Your task to perform on an android device: toggle sleep mode Image 0: 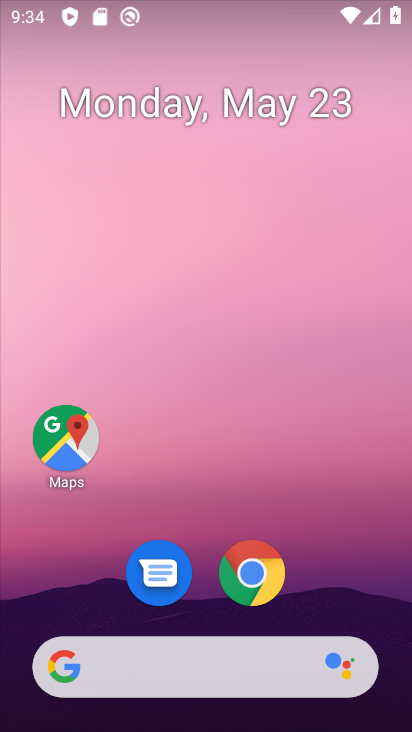
Step 0: drag from (166, 630) to (216, 157)
Your task to perform on an android device: toggle sleep mode Image 1: 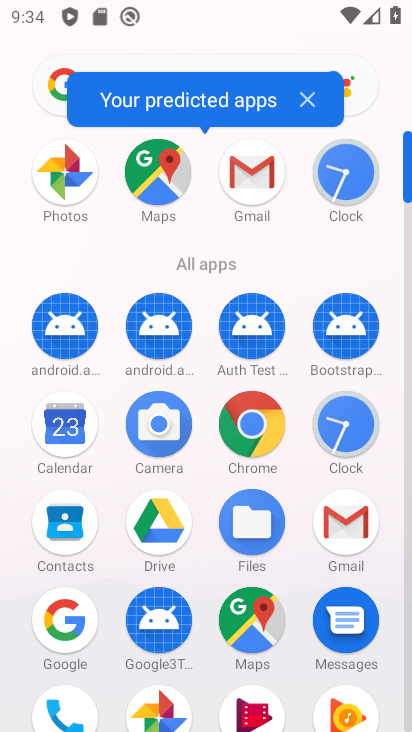
Step 1: drag from (201, 563) to (199, 126)
Your task to perform on an android device: toggle sleep mode Image 2: 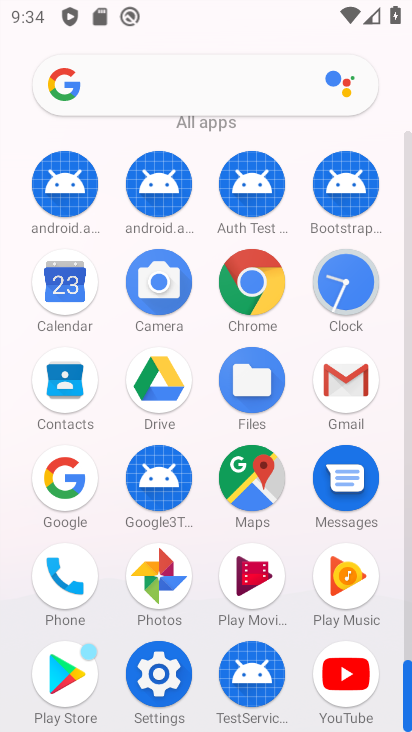
Step 2: click (161, 677)
Your task to perform on an android device: toggle sleep mode Image 3: 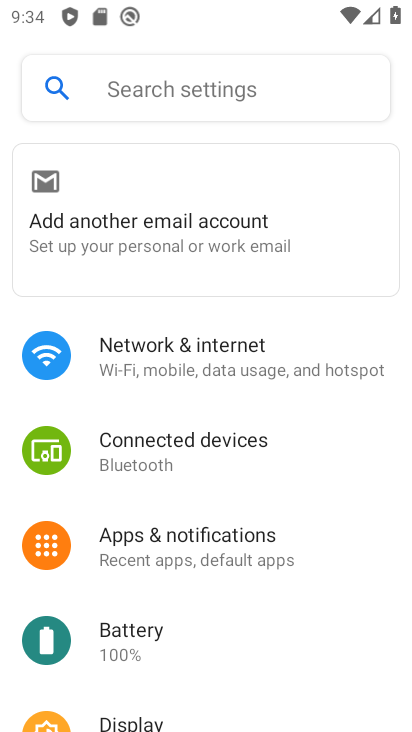
Step 3: drag from (170, 672) to (183, 244)
Your task to perform on an android device: toggle sleep mode Image 4: 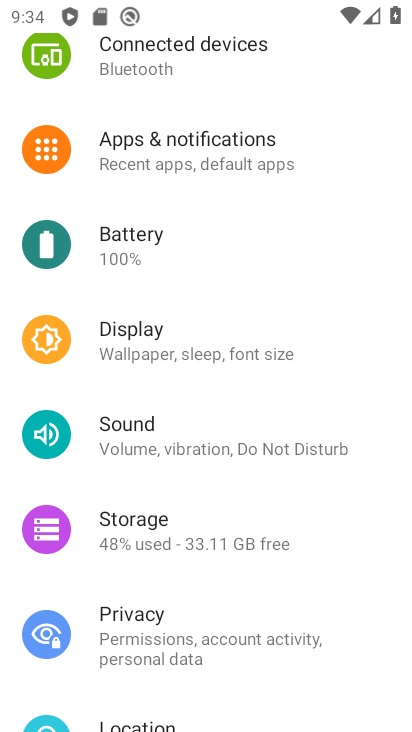
Step 4: click (217, 359)
Your task to perform on an android device: toggle sleep mode Image 5: 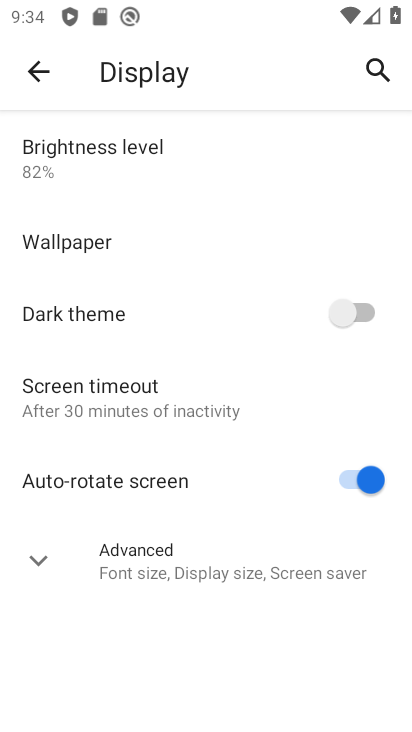
Step 5: click (176, 563)
Your task to perform on an android device: toggle sleep mode Image 6: 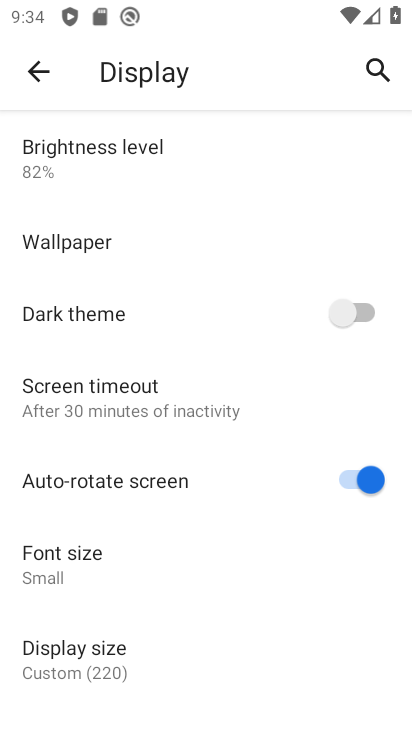
Step 6: drag from (190, 660) to (190, 186)
Your task to perform on an android device: toggle sleep mode Image 7: 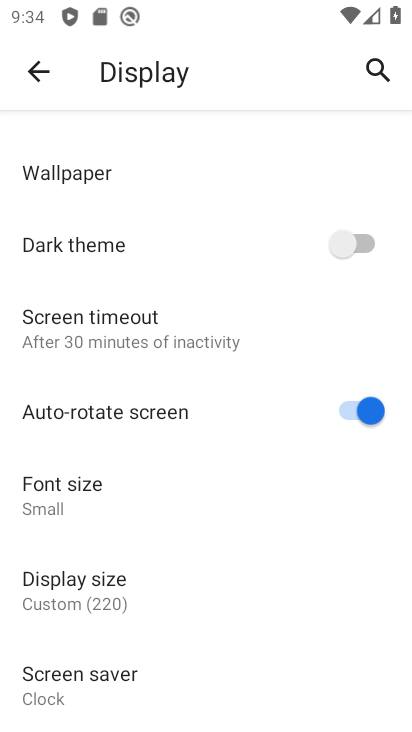
Step 7: click (117, 341)
Your task to perform on an android device: toggle sleep mode Image 8: 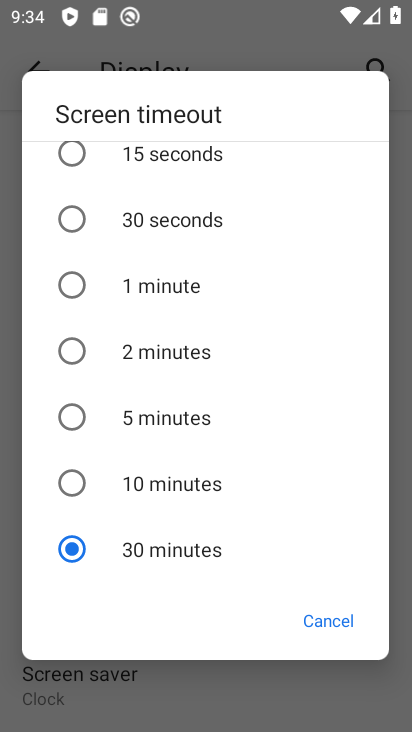
Step 8: click (177, 152)
Your task to perform on an android device: toggle sleep mode Image 9: 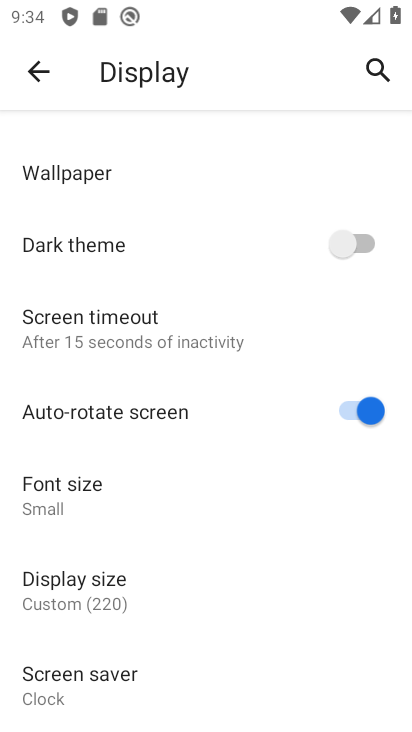
Step 9: task complete